Your task to perform on an android device: change notifications settings Image 0: 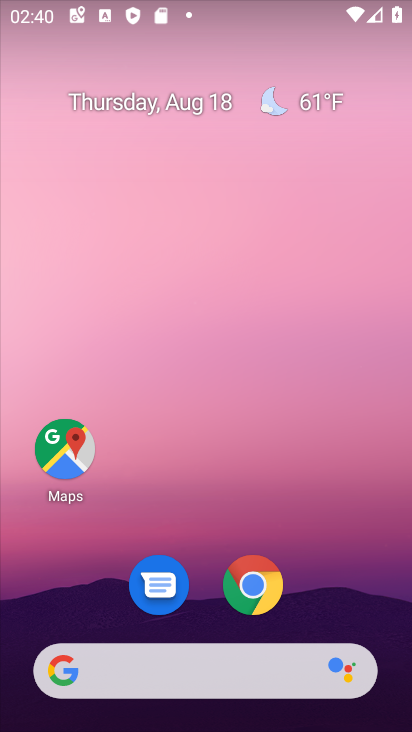
Step 0: drag from (215, 539) to (277, 0)
Your task to perform on an android device: change notifications settings Image 1: 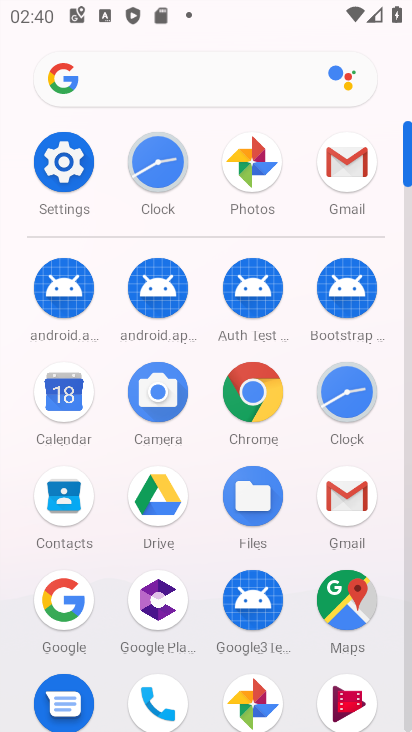
Step 1: click (64, 157)
Your task to perform on an android device: change notifications settings Image 2: 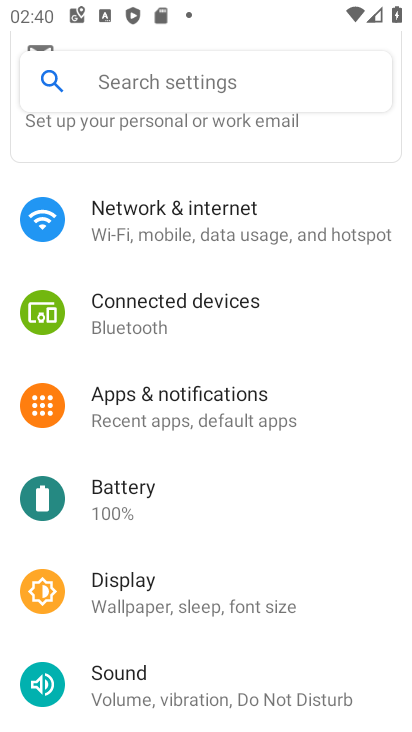
Step 2: click (234, 402)
Your task to perform on an android device: change notifications settings Image 3: 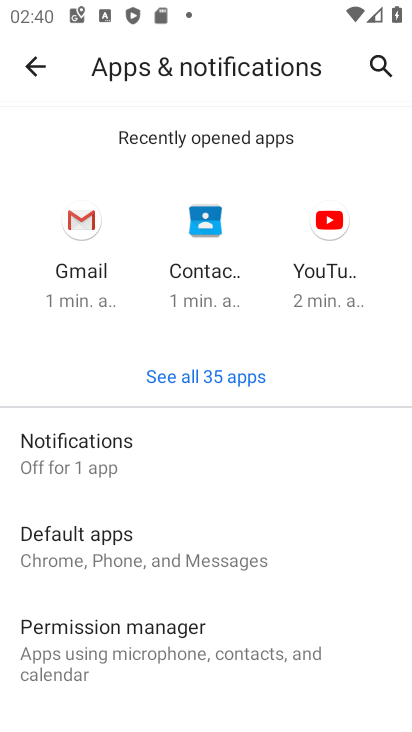
Step 3: click (115, 425)
Your task to perform on an android device: change notifications settings Image 4: 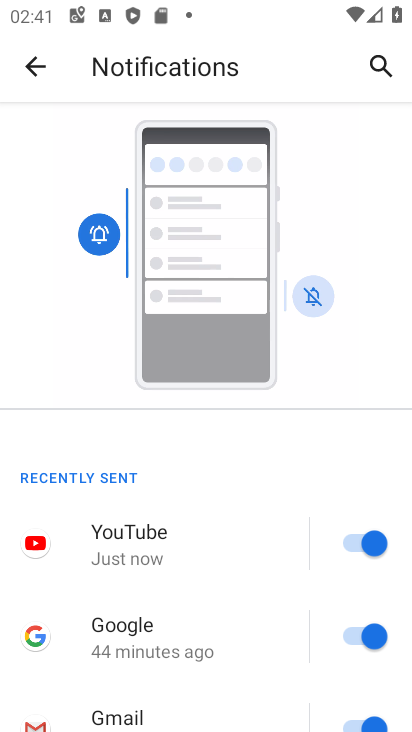
Step 4: task complete